Your task to perform on an android device: turn on the 24-hour format for clock Image 0: 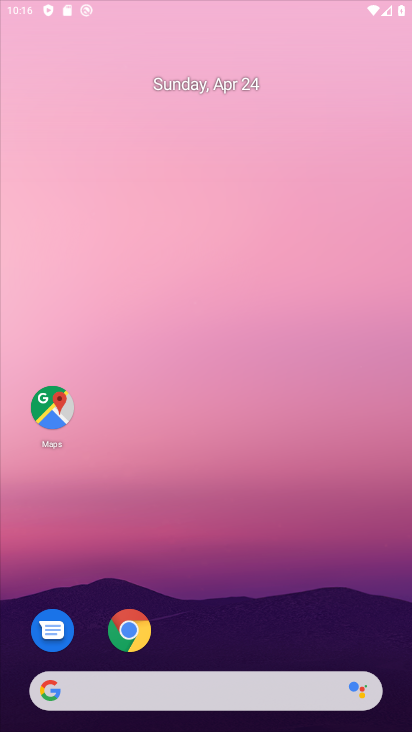
Step 0: drag from (190, 609) to (274, 141)
Your task to perform on an android device: turn on the 24-hour format for clock Image 1: 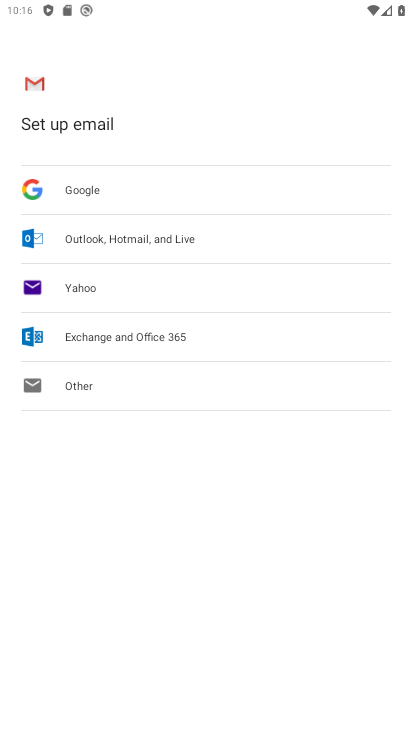
Step 1: press back button
Your task to perform on an android device: turn on the 24-hour format for clock Image 2: 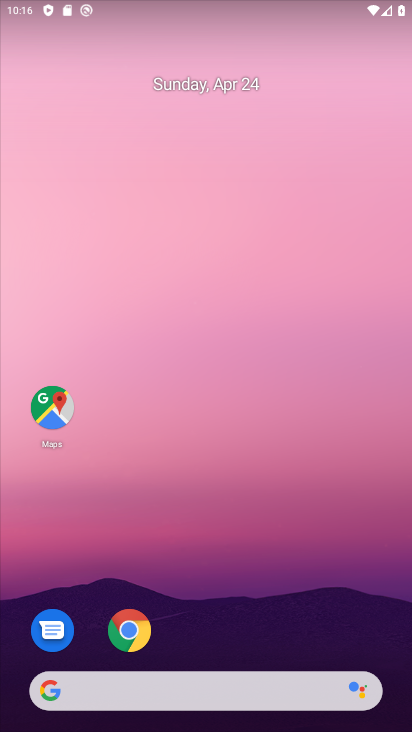
Step 2: drag from (208, 664) to (329, 111)
Your task to perform on an android device: turn on the 24-hour format for clock Image 3: 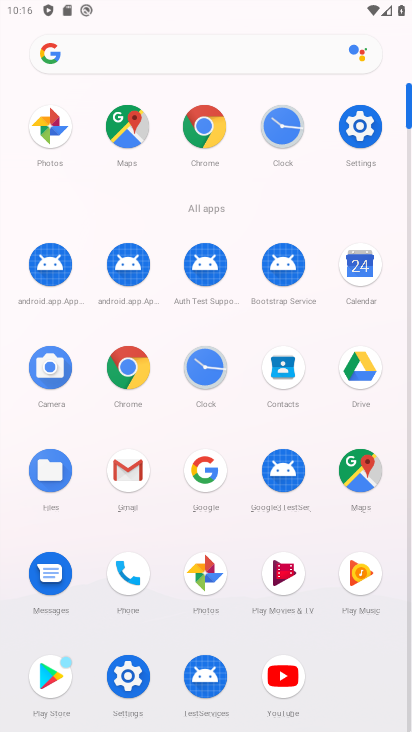
Step 3: click (217, 358)
Your task to perform on an android device: turn on the 24-hour format for clock Image 4: 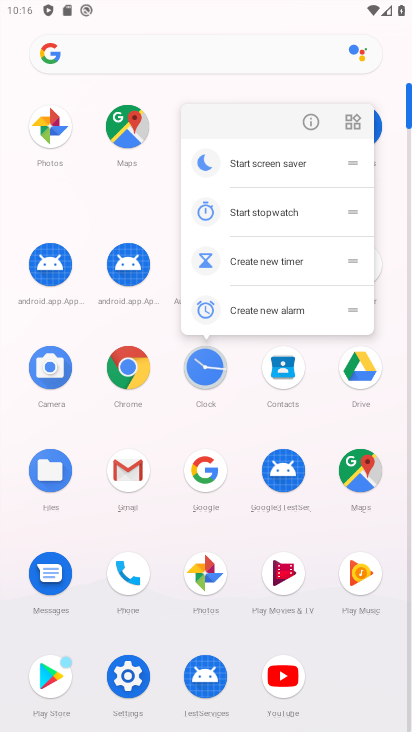
Step 4: click (208, 369)
Your task to perform on an android device: turn on the 24-hour format for clock Image 5: 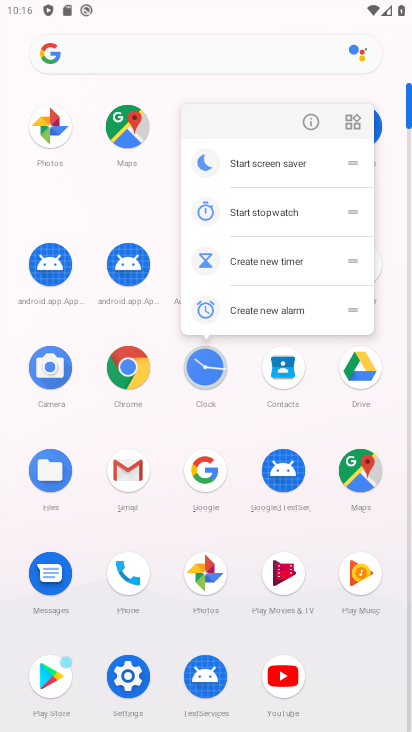
Step 5: click (205, 369)
Your task to perform on an android device: turn on the 24-hour format for clock Image 6: 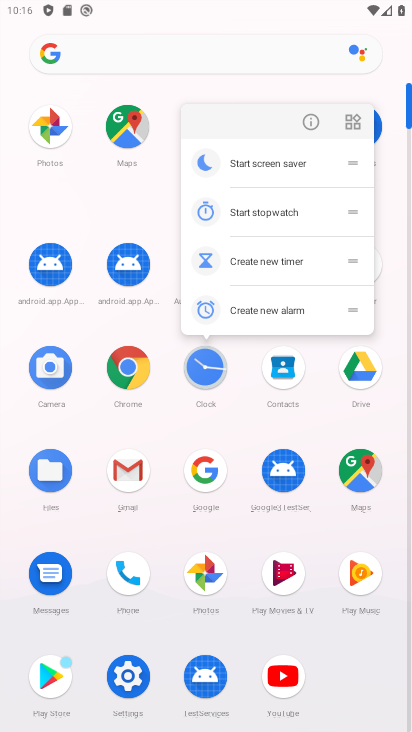
Step 6: click (204, 369)
Your task to perform on an android device: turn on the 24-hour format for clock Image 7: 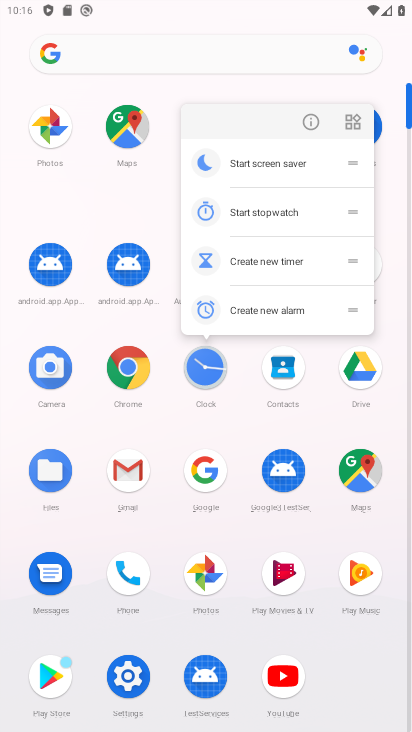
Step 7: click (197, 362)
Your task to perform on an android device: turn on the 24-hour format for clock Image 8: 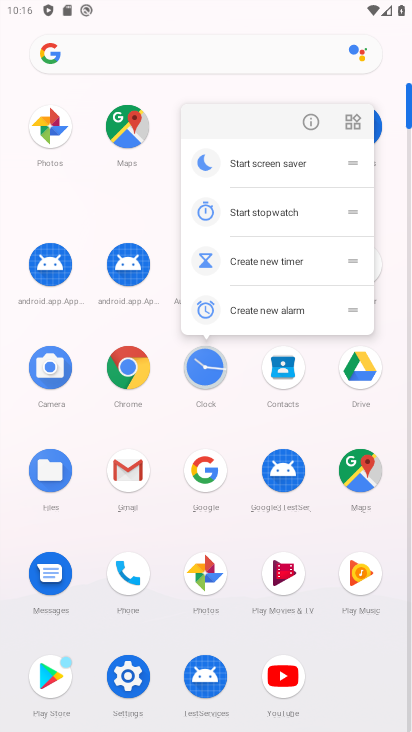
Step 8: click (210, 373)
Your task to perform on an android device: turn on the 24-hour format for clock Image 9: 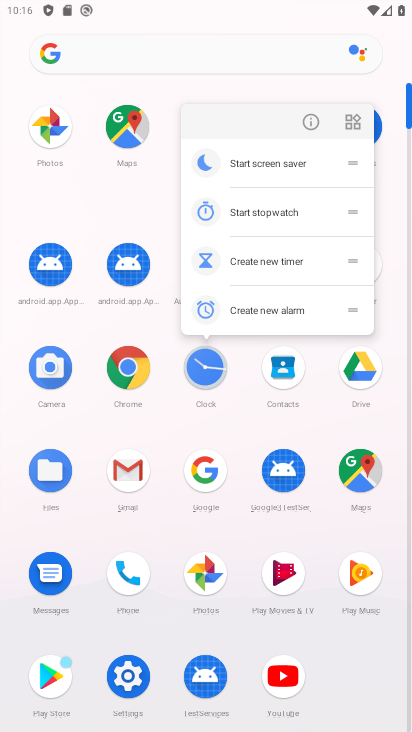
Step 9: click (217, 369)
Your task to perform on an android device: turn on the 24-hour format for clock Image 10: 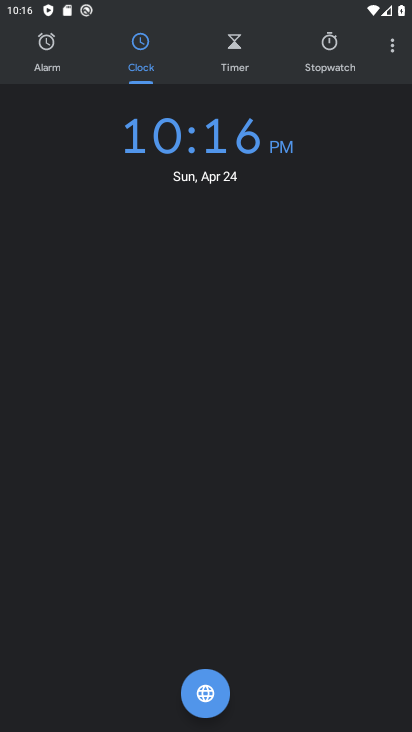
Step 10: click (386, 52)
Your task to perform on an android device: turn on the 24-hour format for clock Image 11: 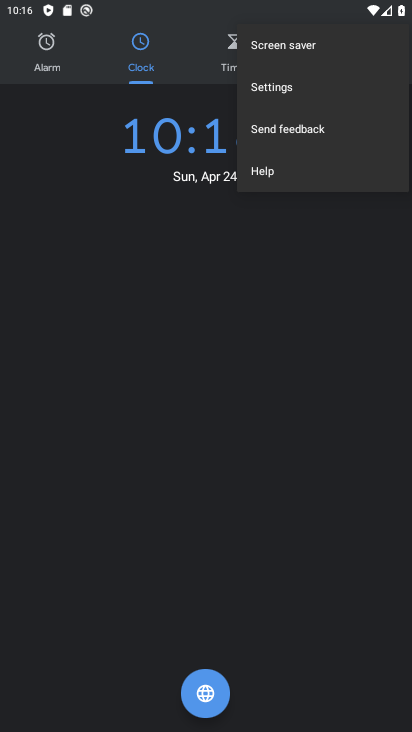
Step 11: click (374, 100)
Your task to perform on an android device: turn on the 24-hour format for clock Image 12: 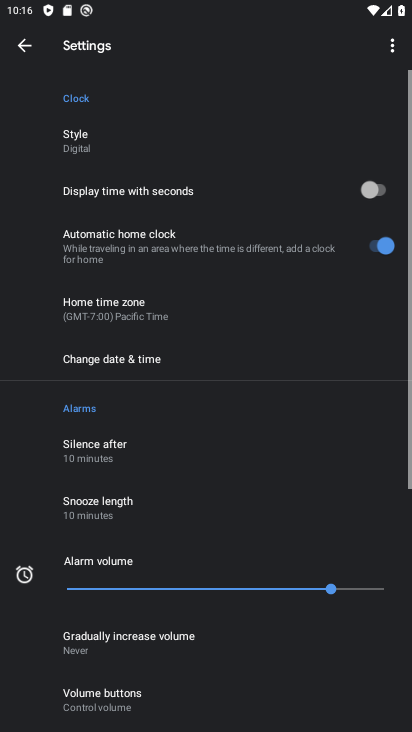
Step 12: click (214, 354)
Your task to perform on an android device: turn on the 24-hour format for clock Image 13: 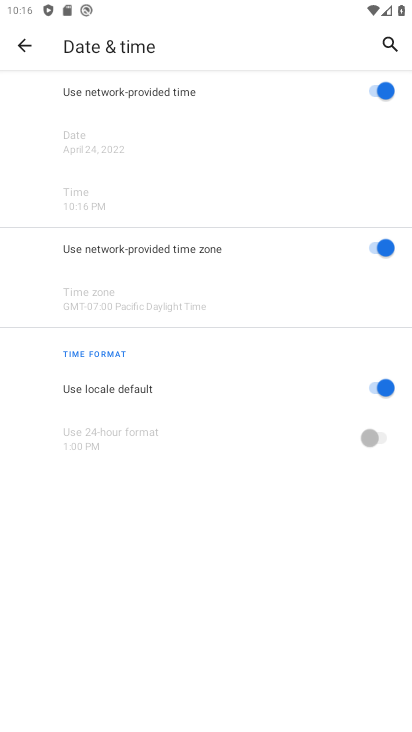
Step 13: click (370, 383)
Your task to perform on an android device: turn on the 24-hour format for clock Image 14: 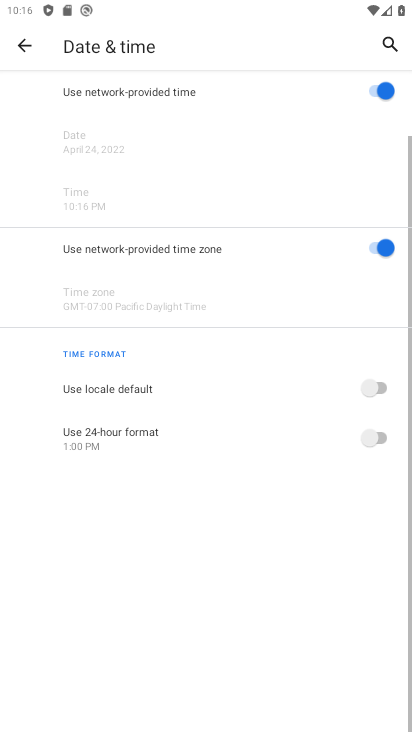
Step 14: click (385, 434)
Your task to perform on an android device: turn on the 24-hour format for clock Image 15: 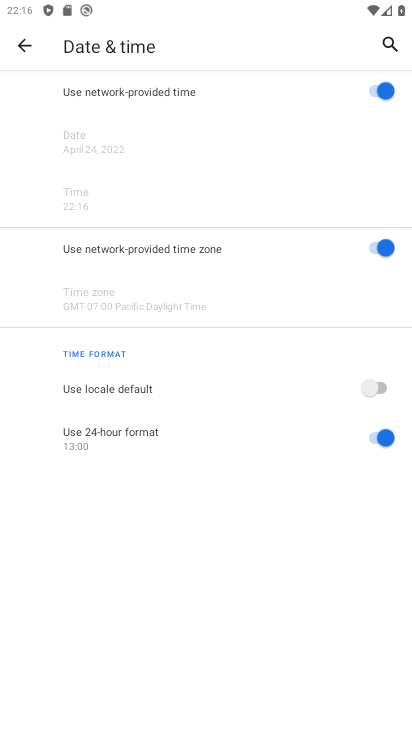
Step 15: task complete